Your task to perform on an android device: Go to settings Image 0: 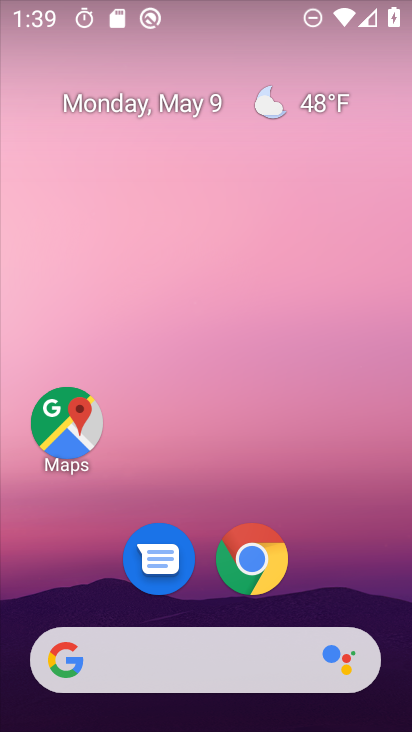
Step 0: drag from (188, 599) to (248, 134)
Your task to perform on an android device: Go to settings Image 1: 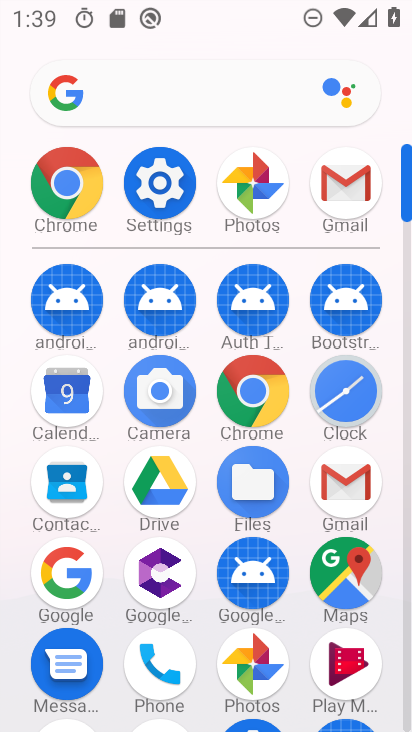
Step 1: click (168, 188)
Your task to perform on an android device: Go to settings Image 2: 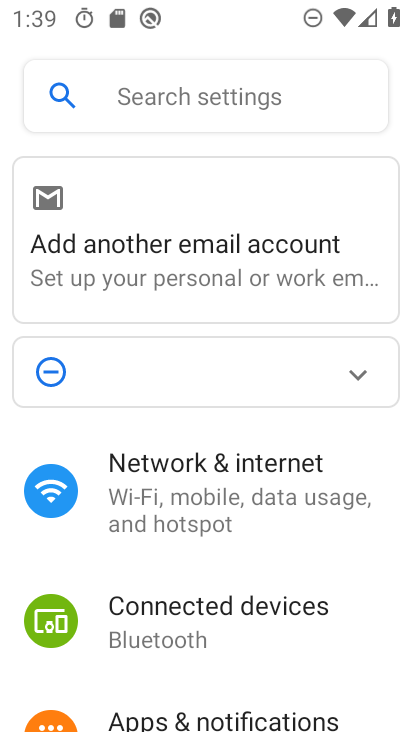
Step 2: task complete